Your task to perform on an android device: turn on wifi Image 0: 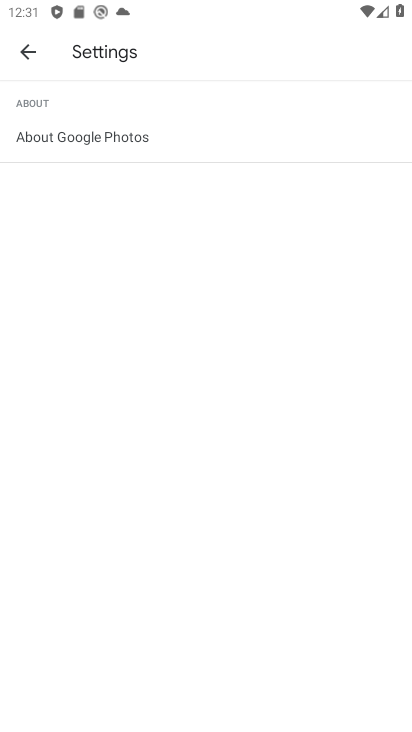
Step 0: press home button
Your task to perform on an android device: turn on wifi Image 1: 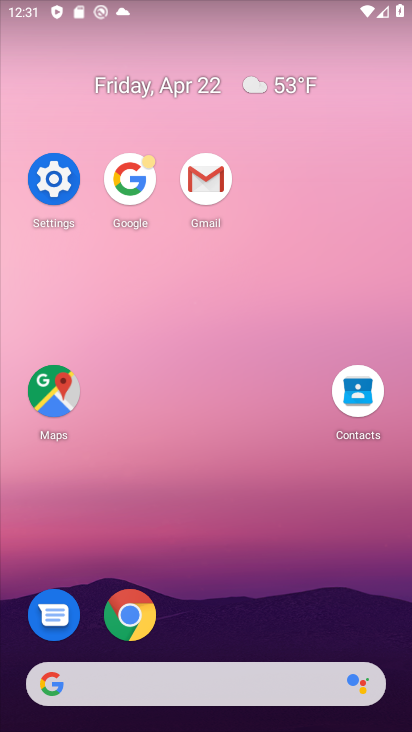
Step 1: click (64, 169)
Your task to perform on an android device: turn on wifi Image 2: 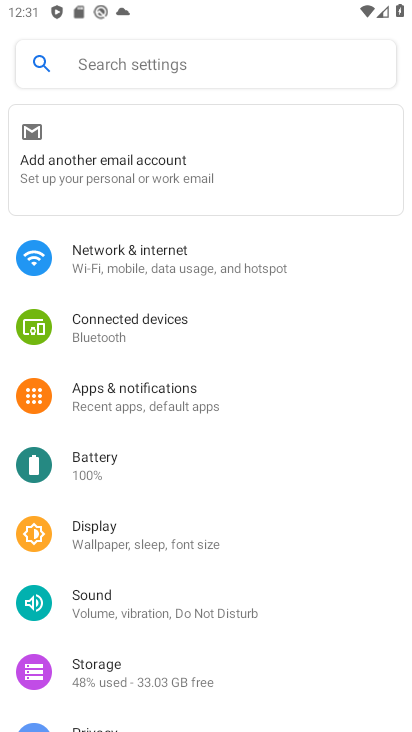
Step 2: click (214, 259)
Your task to perform on an android device: turn on wifi Image 3: 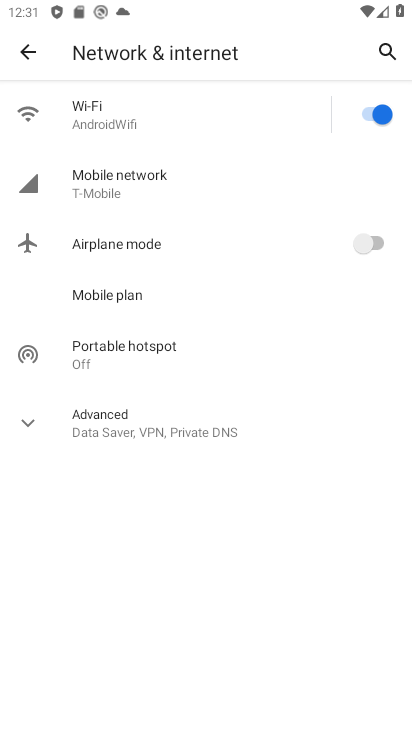
Step 3: task complete